Your task to perform on an android device: find photos in the google photos app Image 0: 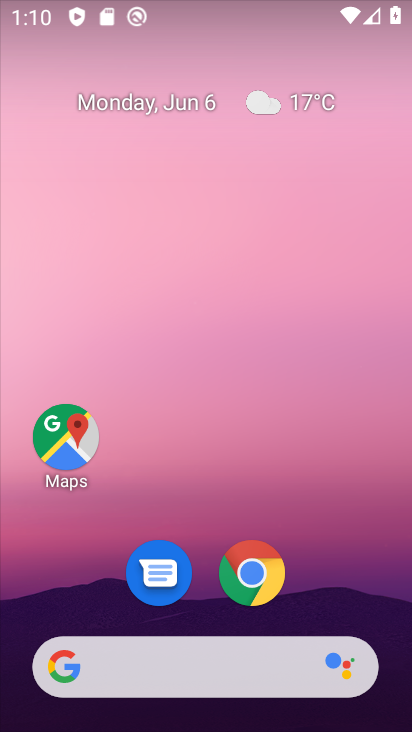
Step 0: drag from (351, 566) to (345, 135)
Your task to perform on an android device: find photos in the google photos app Image 1: 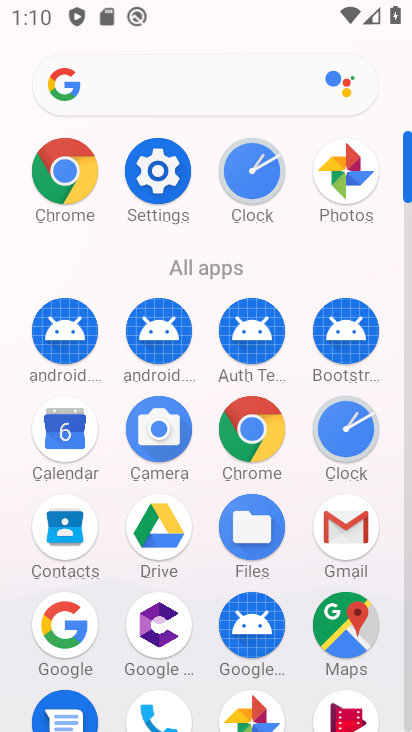
Step 1: click (328, 187)
Your task to perform on an android device: find photos in the google photos app Image 2: 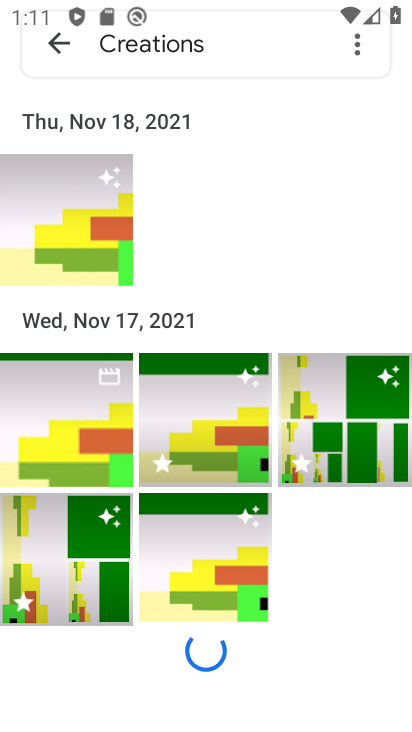
Step 2: click (88, 223)
Your task to perform on an android device: find photos in the google photos app Image 3: 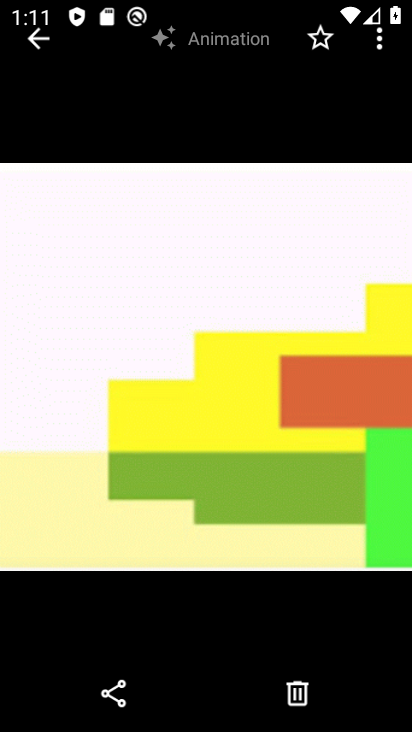
Step 3: task complete